Your task to perform on an android device: set default search engine in the chrome app Image 0: 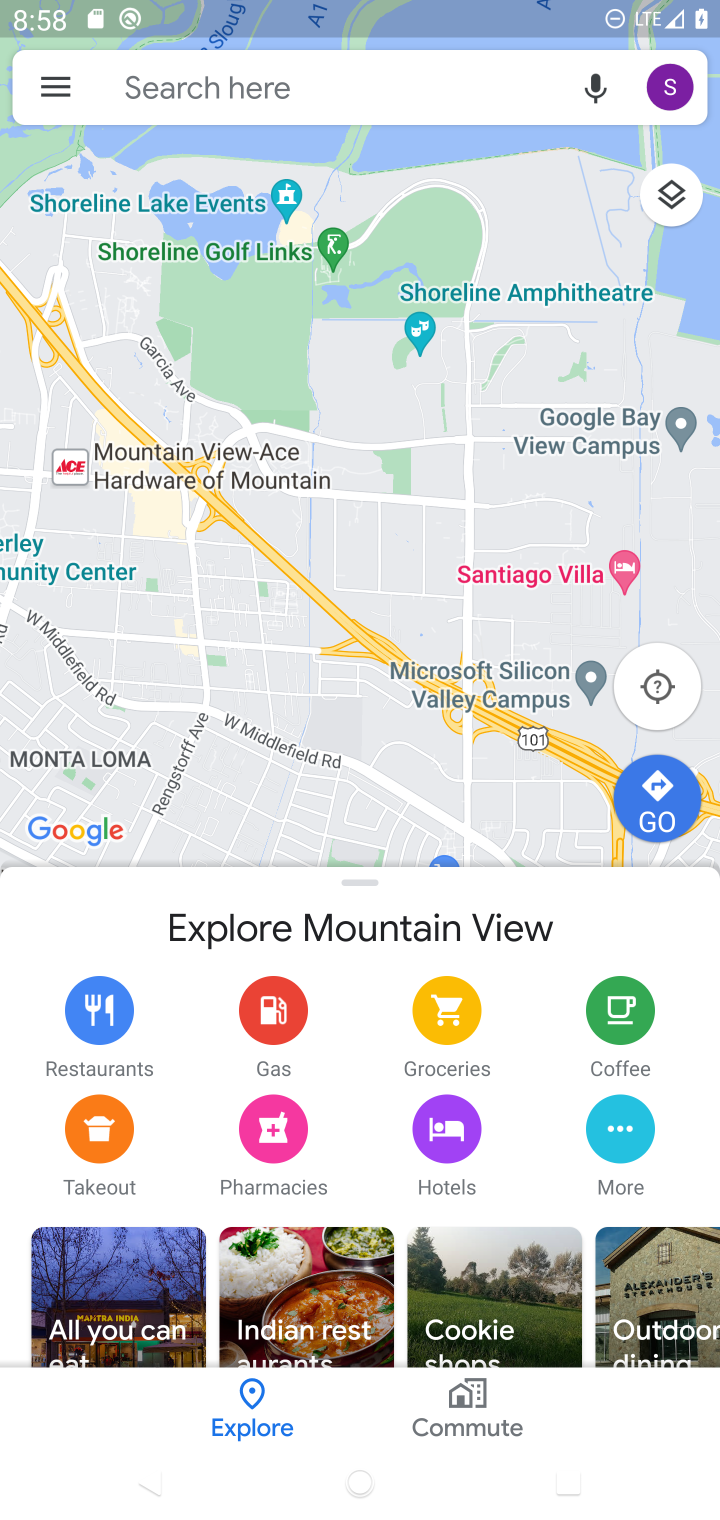
Step 0: press home button
Your task to perform on an android device: set default search engine in the chrome app Image 1: 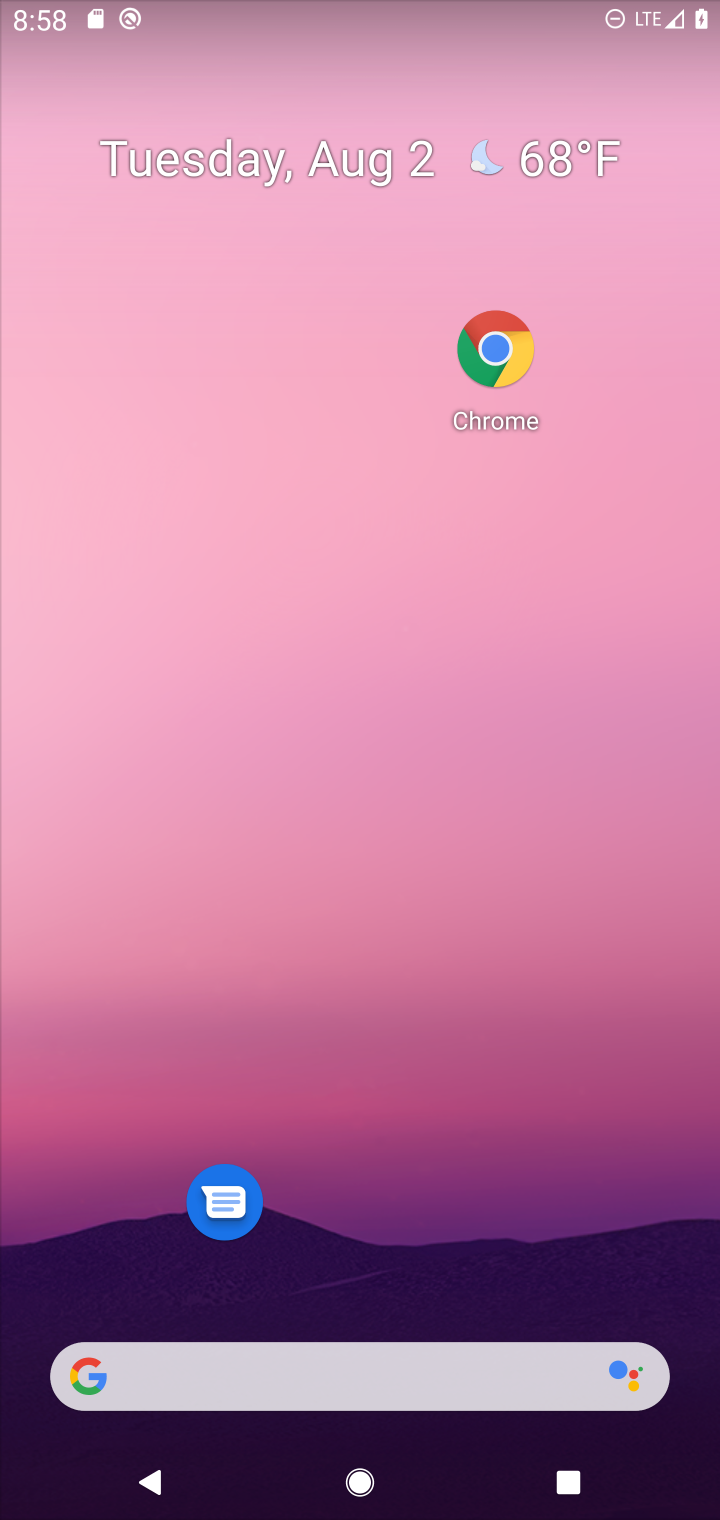
Step 1: click (364, 1265)
Your task to perform on an android device: set default search engine in the chrome app Image 2: 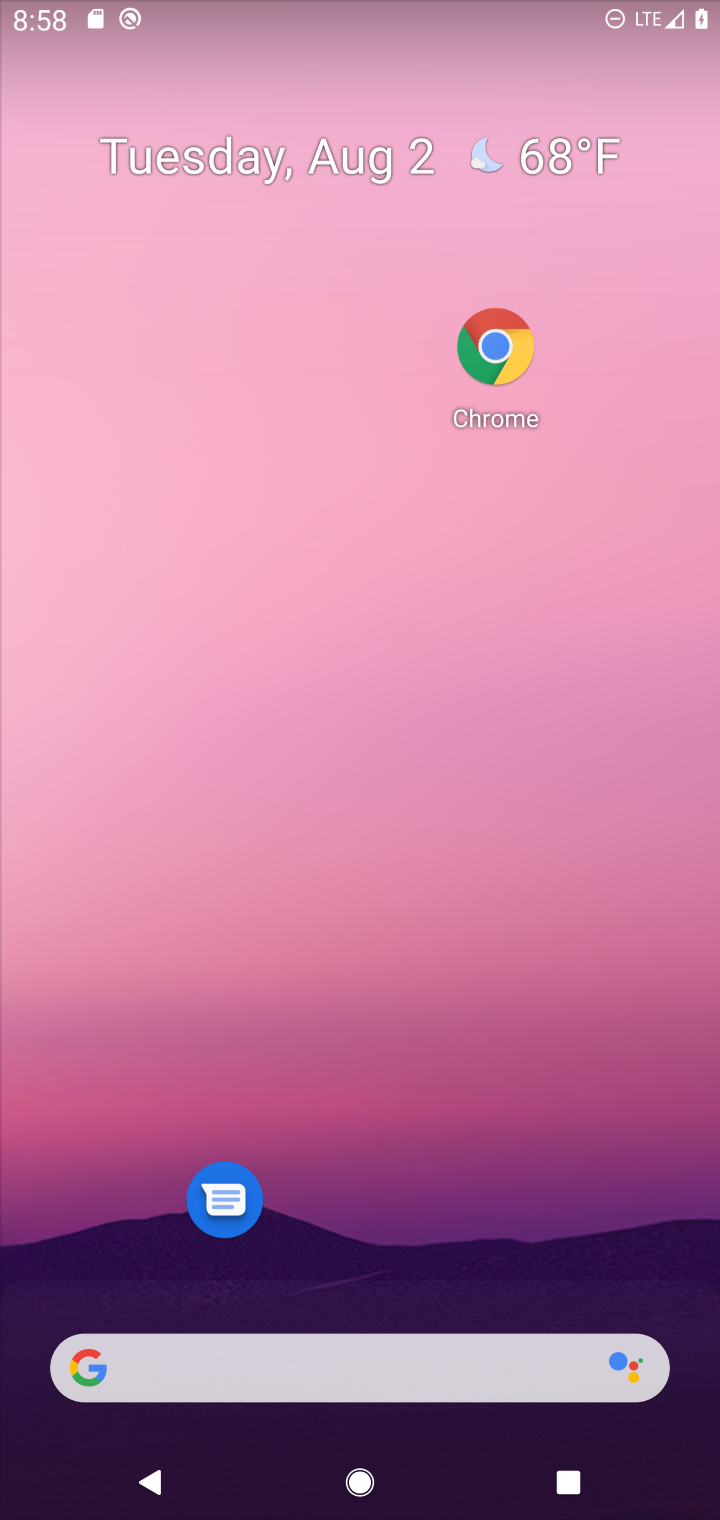
Step 2: click (499, 354)
Your task to perform on an android device: set default search engine in the chrome app Image 3: 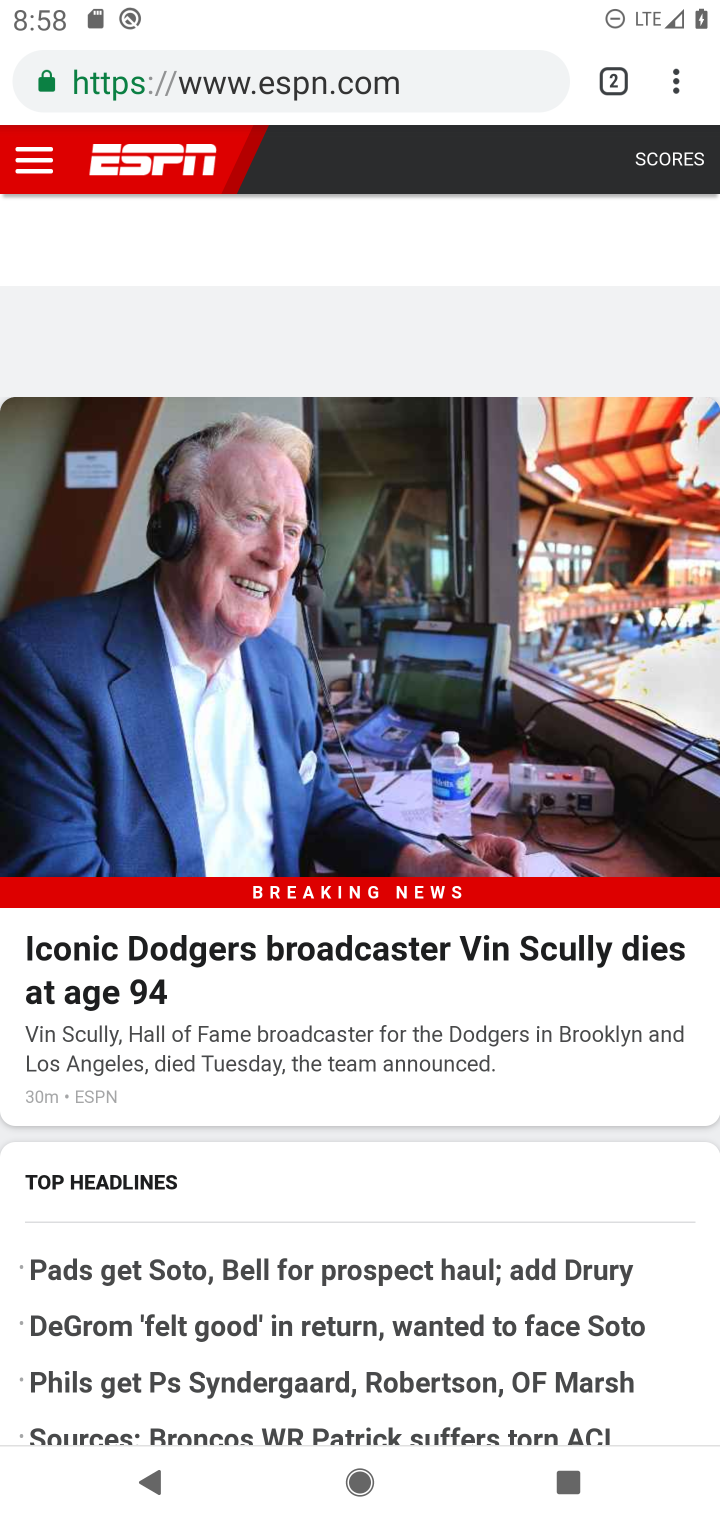
Step 3: click (683, 87)
Your task to perform on an android device: set default search engine in the chrome app Image 4: 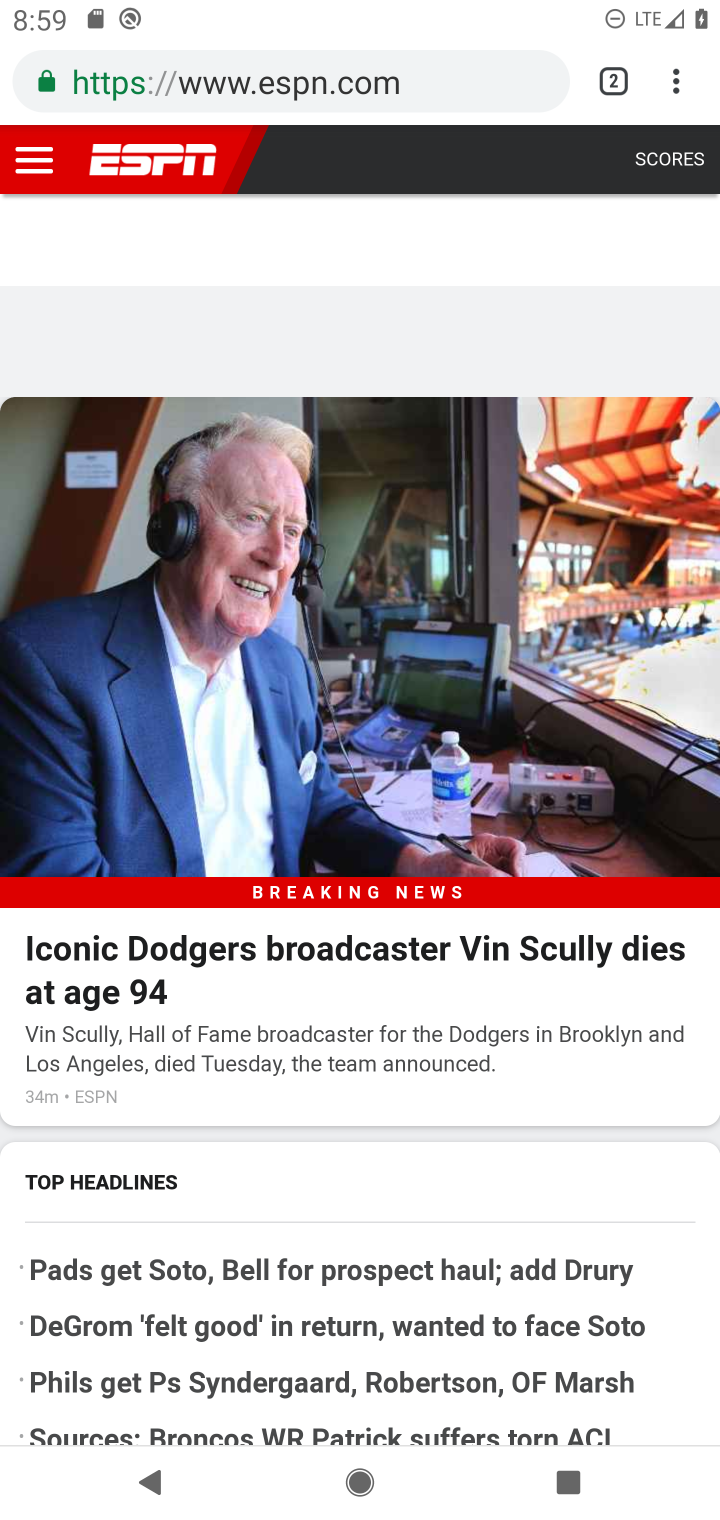
Step 4: click (679, 81)
Your task to perform on an android device: set default search engine in the chrome app Image 5: 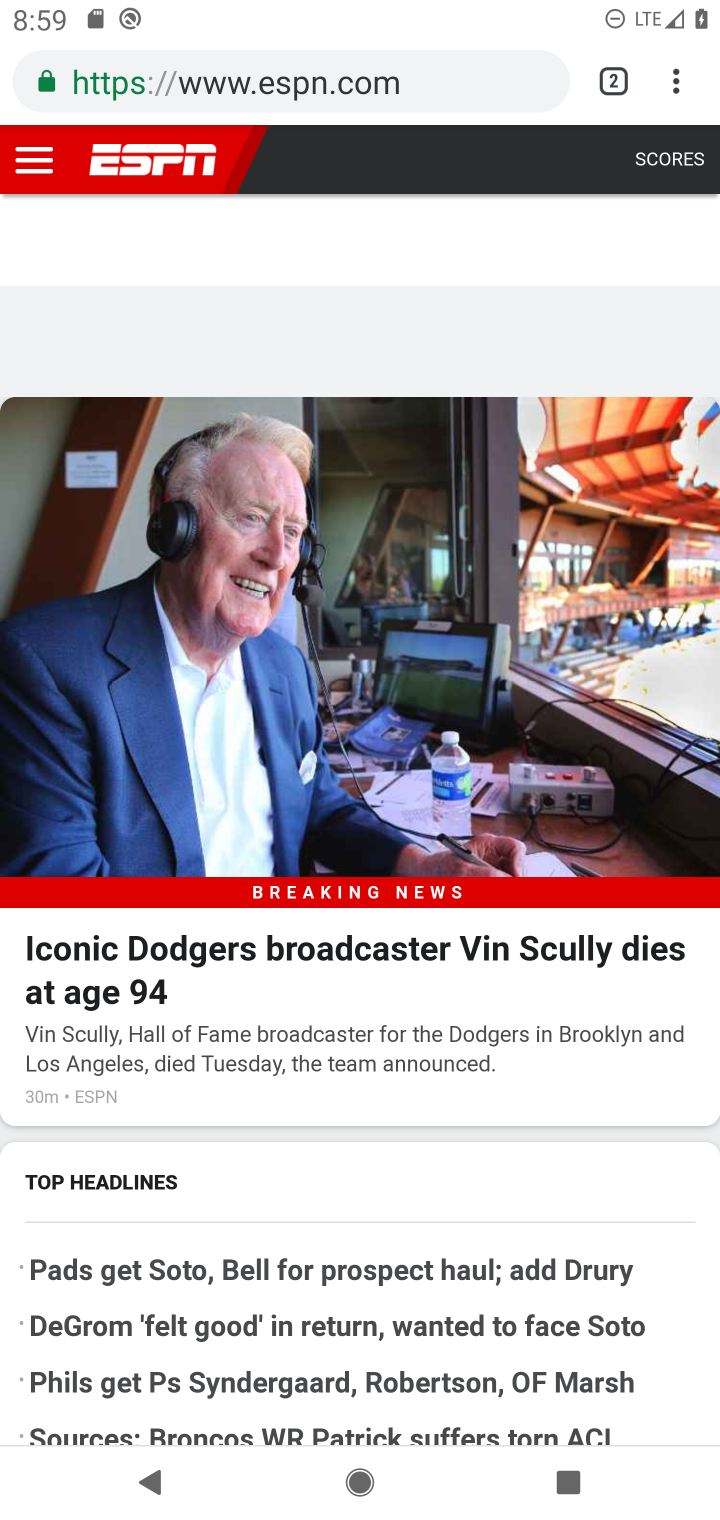
Step 5: click (679, 79)
Your task to perform on an android device: set default search engine in the chrome app Image 6: 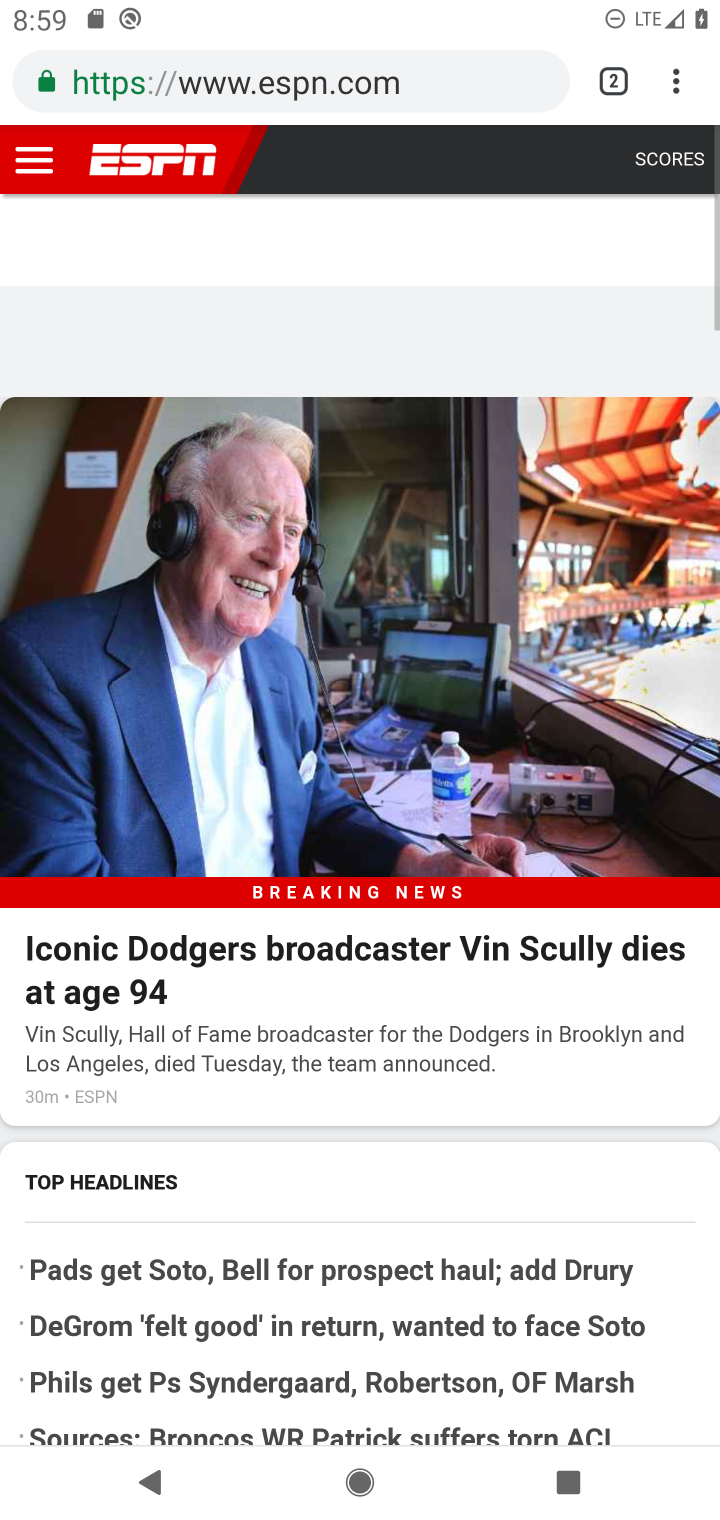
Step 6: click (671, 84)
Your task to perform on an android device: set default search engine in the chrome app Image 7: 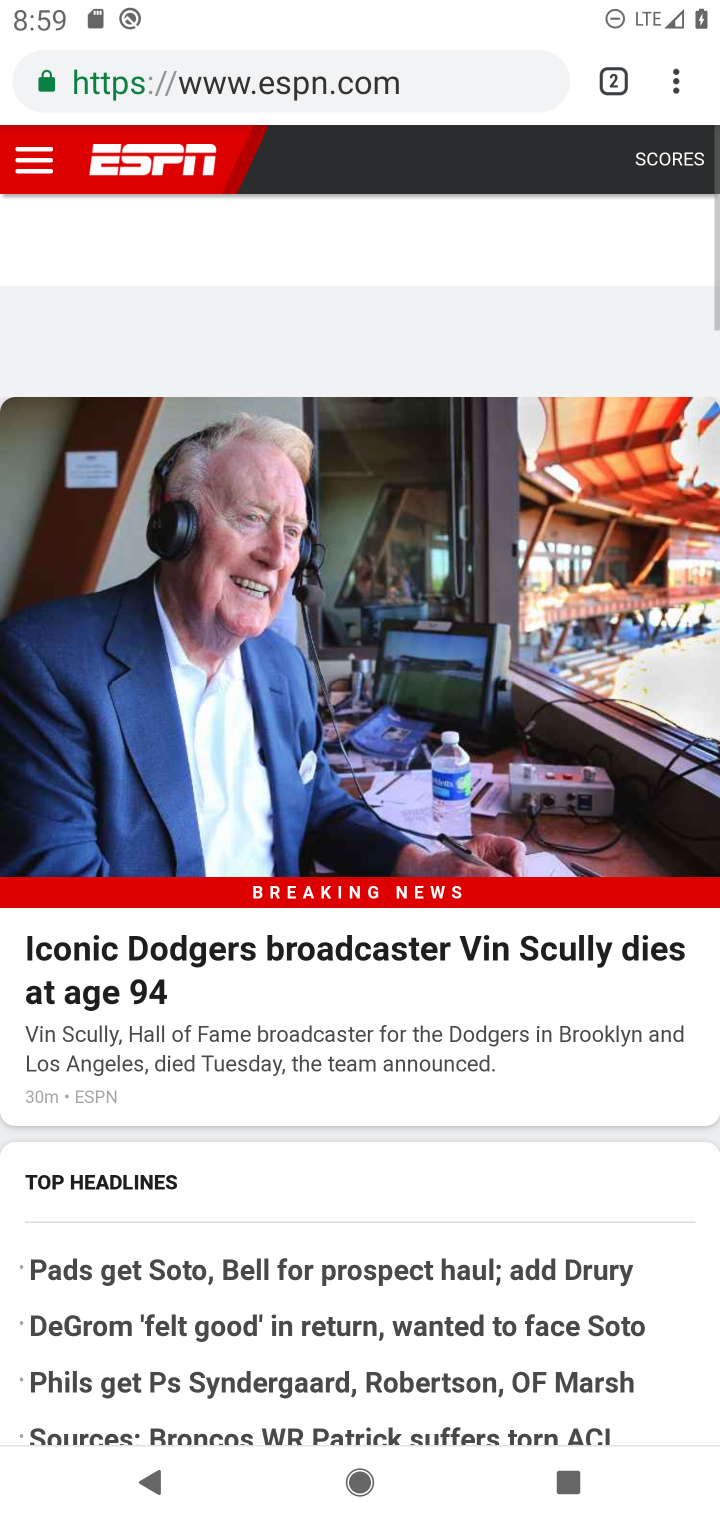
Step 7: click (681, 81)
Your task to perform on an android device: set default search engine in the chrome app Image 8: 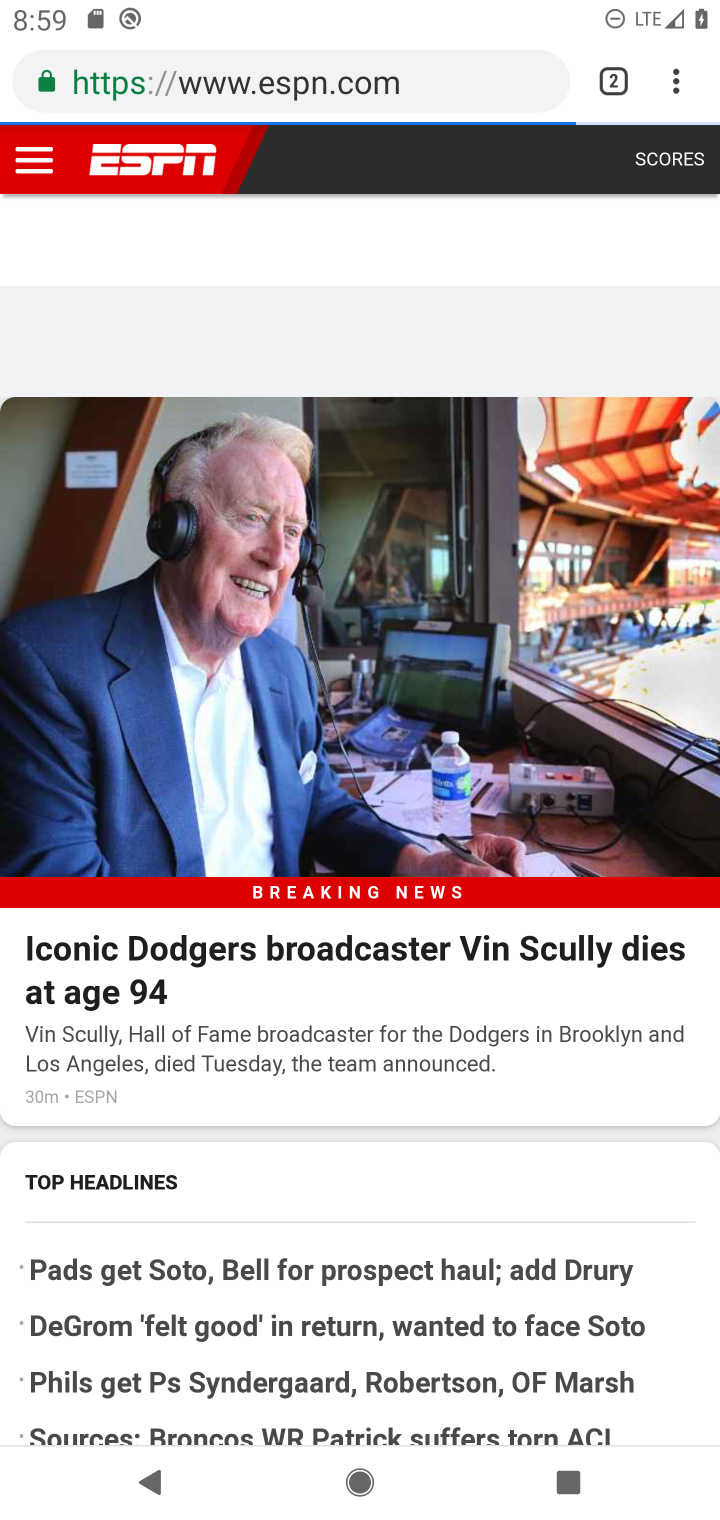
Step 8: drag from (681, 81) to (417, 990)
Your task to perform on an android device: set default search engine in the chrome app Image 9: 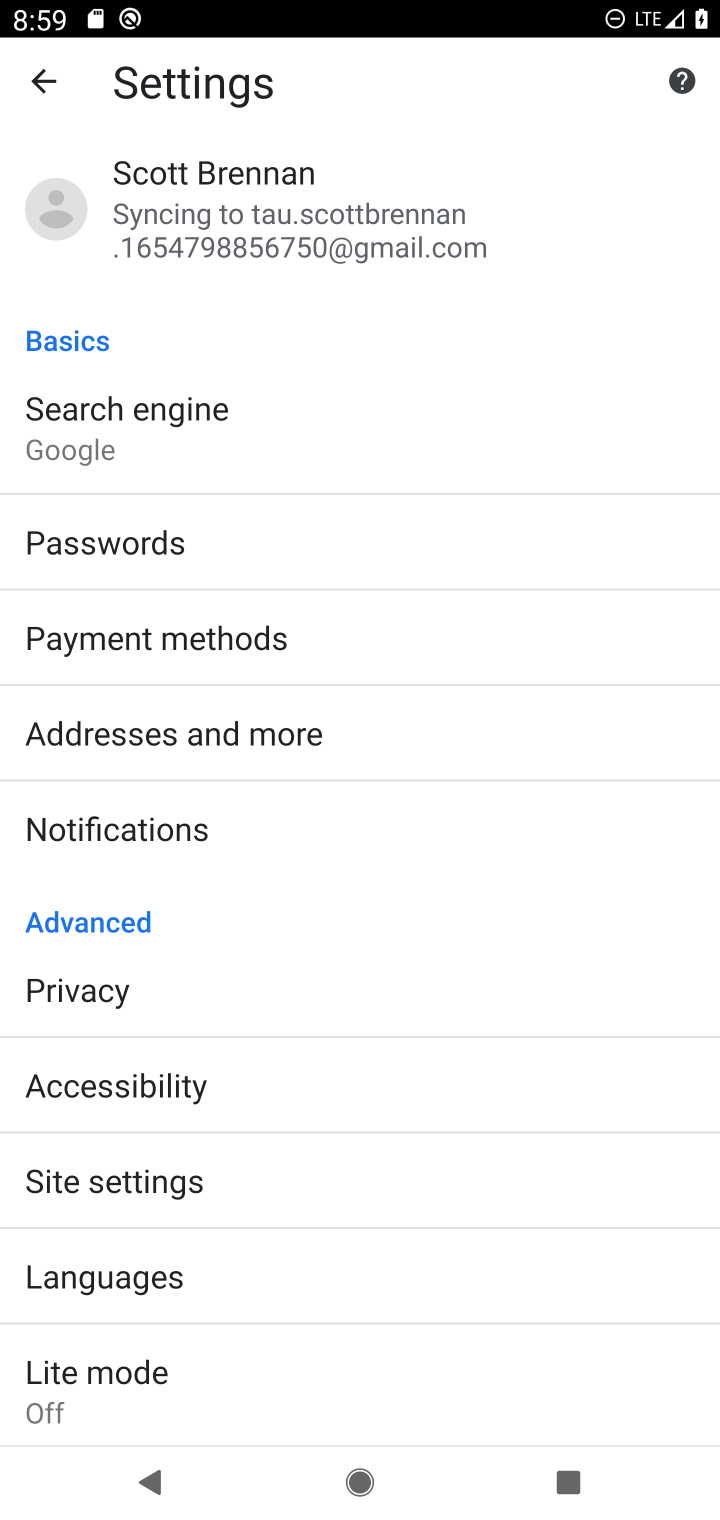
Step 9: click (40, 439)
Your task to perform on an android device: set default search engine in the chrome app Image 10: 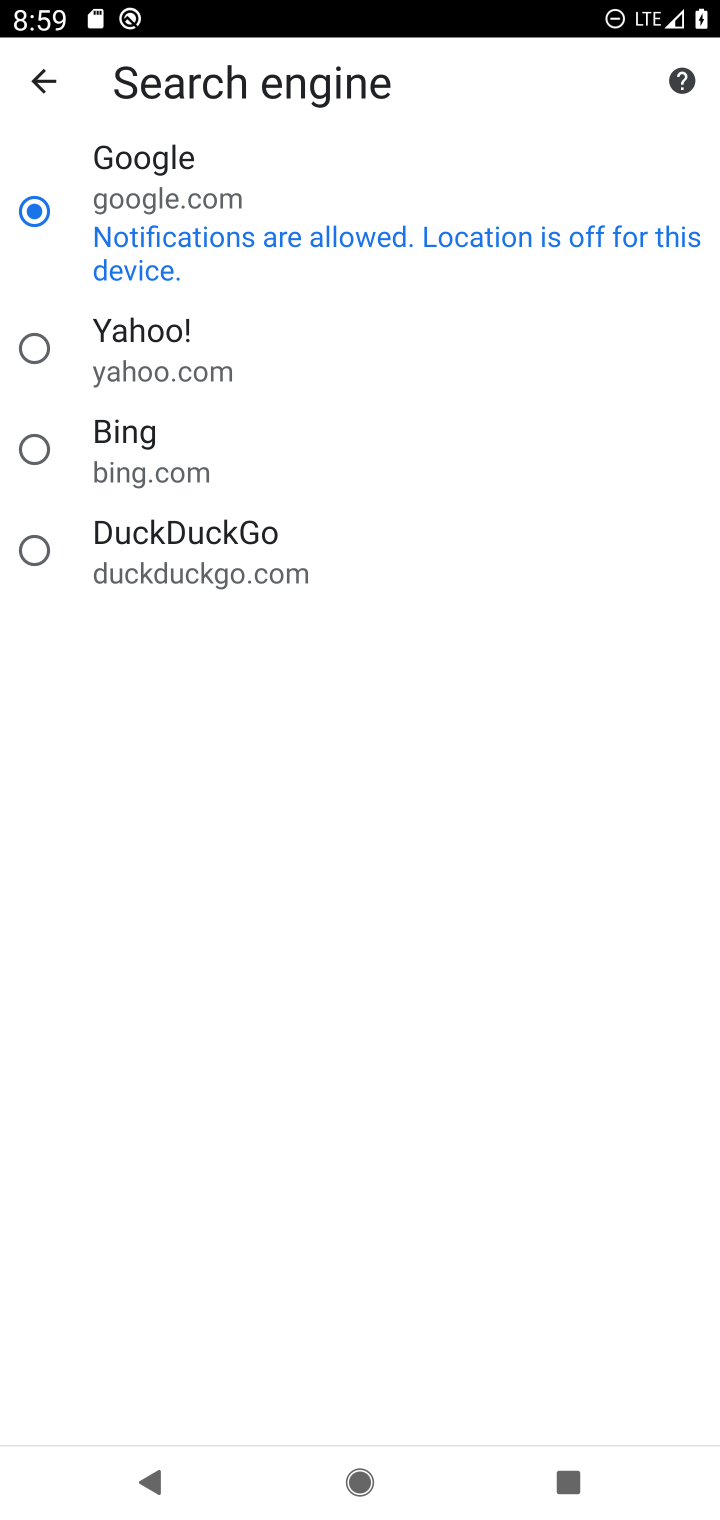
Step 10: click (21, 361)
Your task to perform on an android device: set default search engine in the chrome app Image 11: 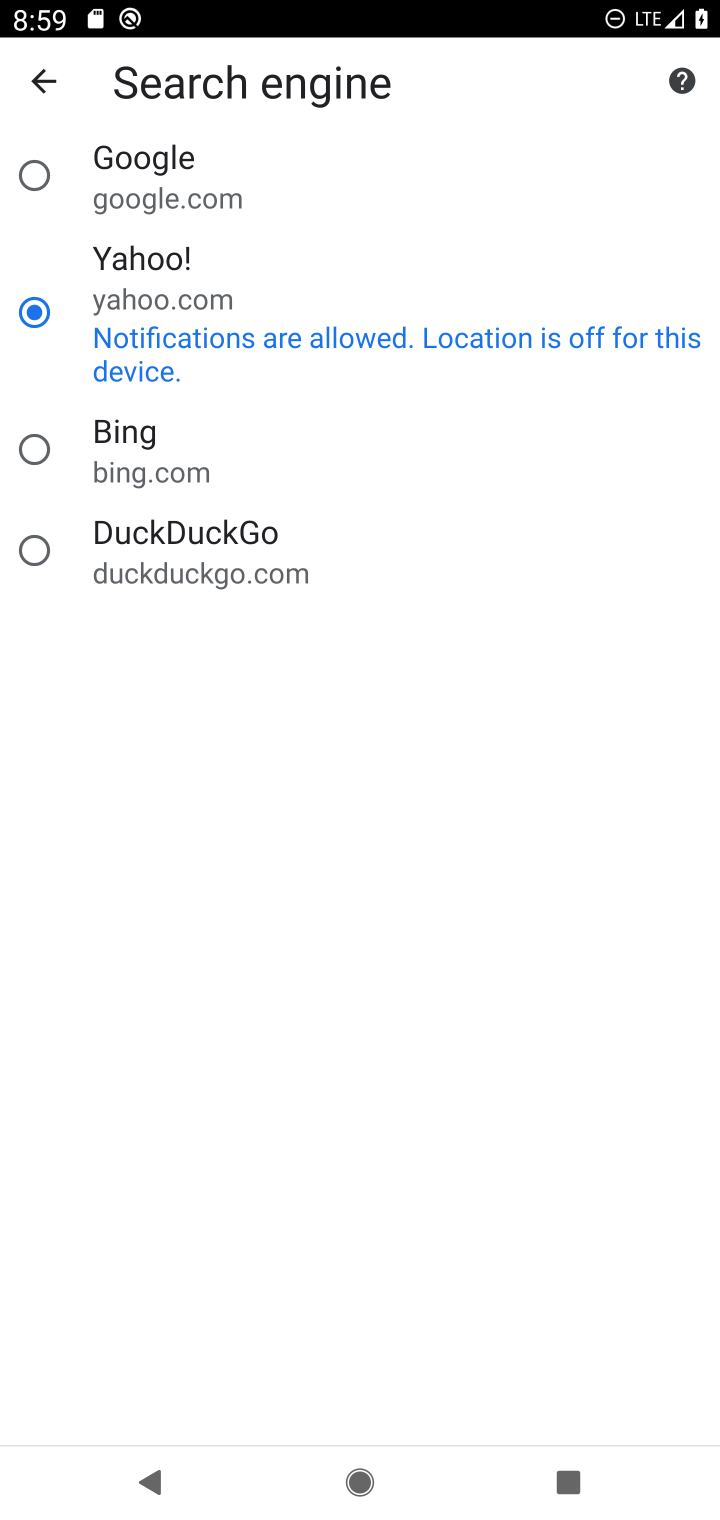
Step 11: task complete